Your task to perform on an android device: Turn off the flashlight Image 0: 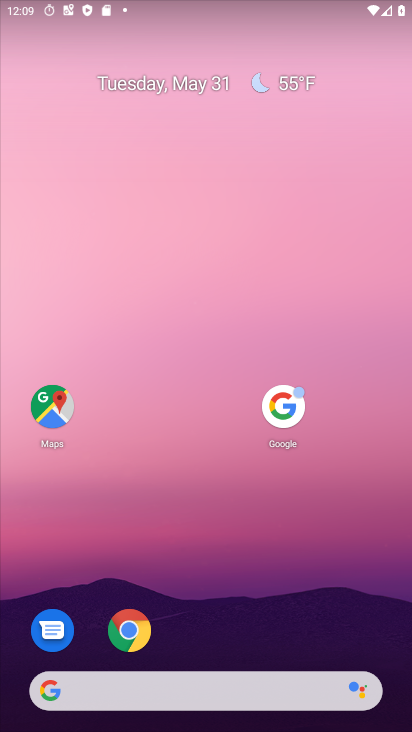
Step 0: press home button
Your task to perform on an android device: Turn off the flashlight Image 1: 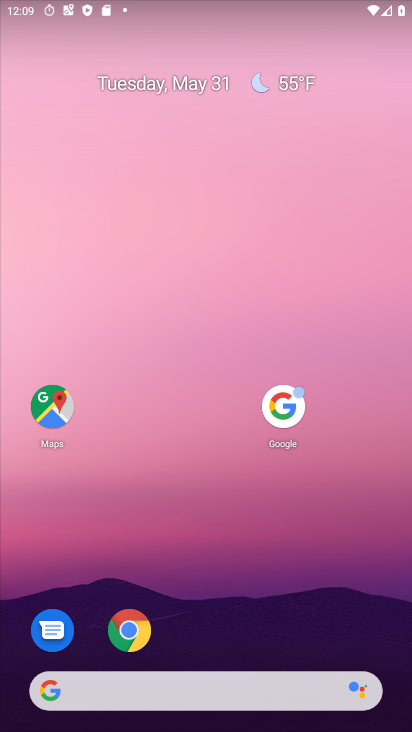
Step 1: task complete